Your task to perform on an android device: turn on notifications settings in the gmail app Image 0: 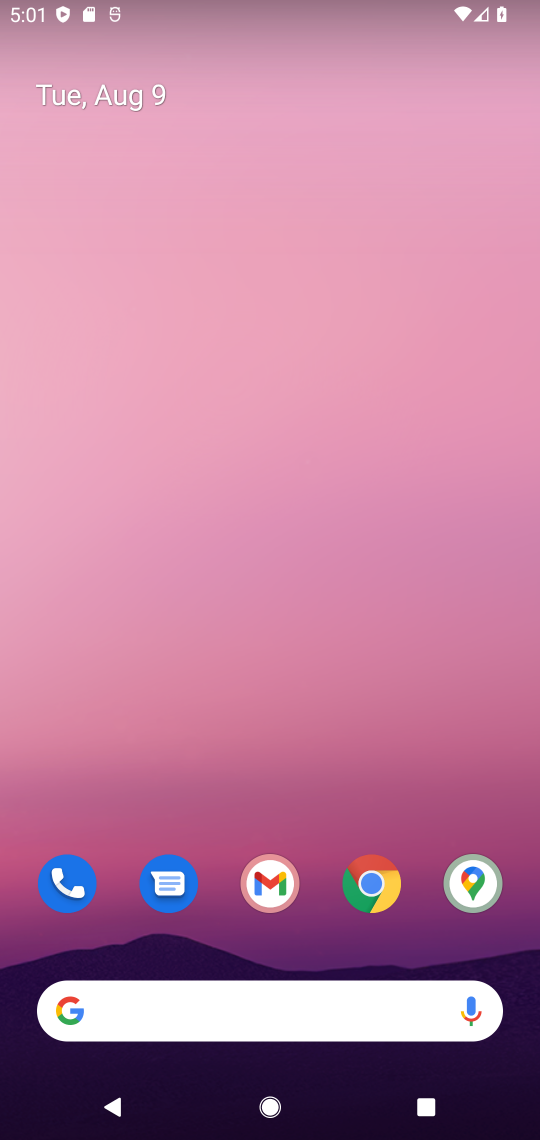
Step 0: click (266, 873)
Your task to perform on an android device: turn on notifications settings in the gmail app Image 1: 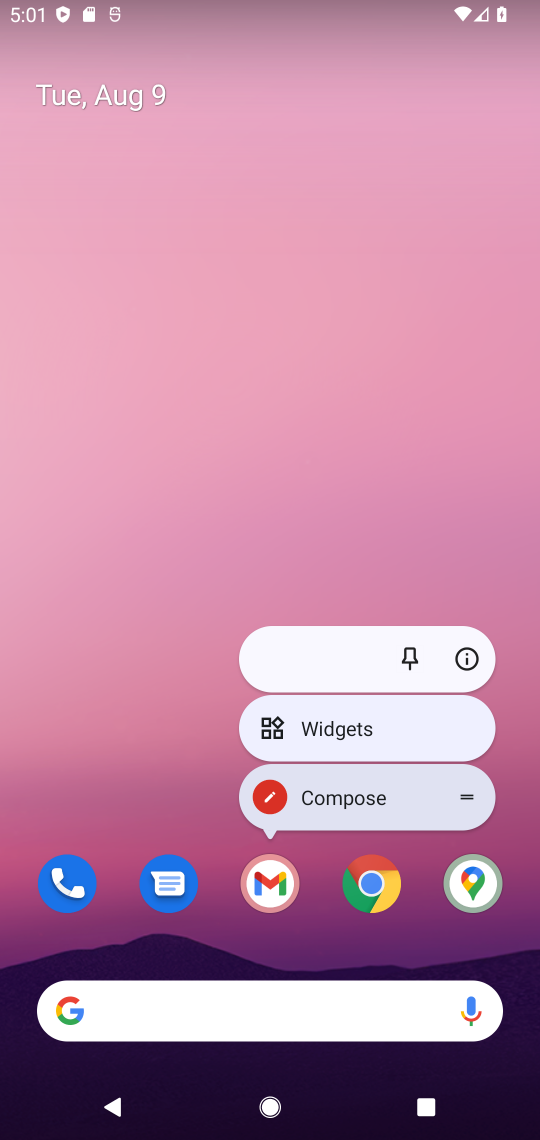
Step 1: click (262, 896)
Your task to perform on an android device: turn on notifications settings in the gmail app Image 2: 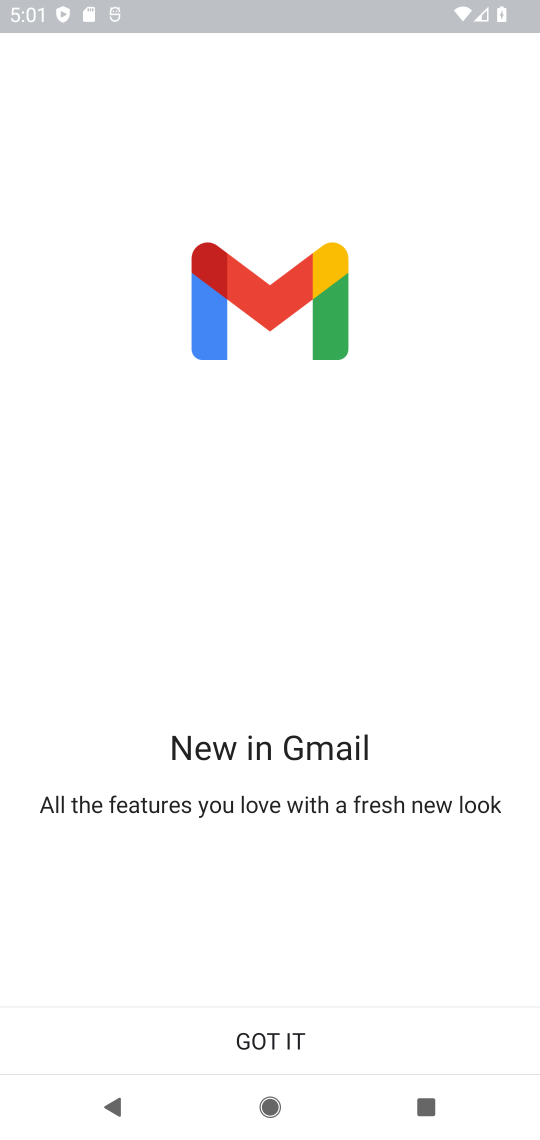
Step 2: click (331, 1021)
Your task to perform on an android device: turn on notifications settings in the gmail app Image 3: 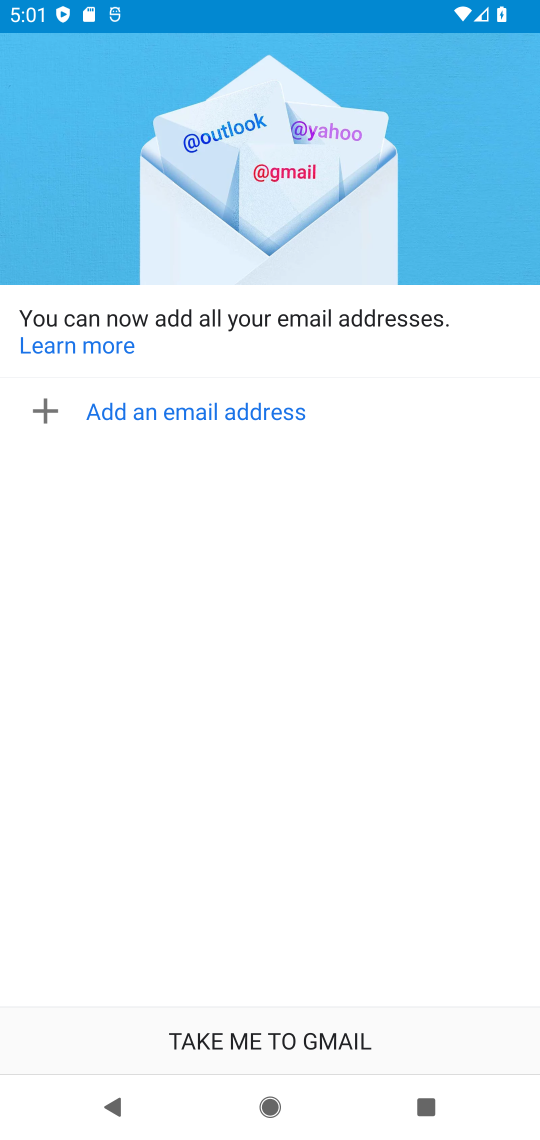
Step 3: click (346, 1026)
Your task to perform on an android device: turn on notifications settings in the gmail app Image 4: 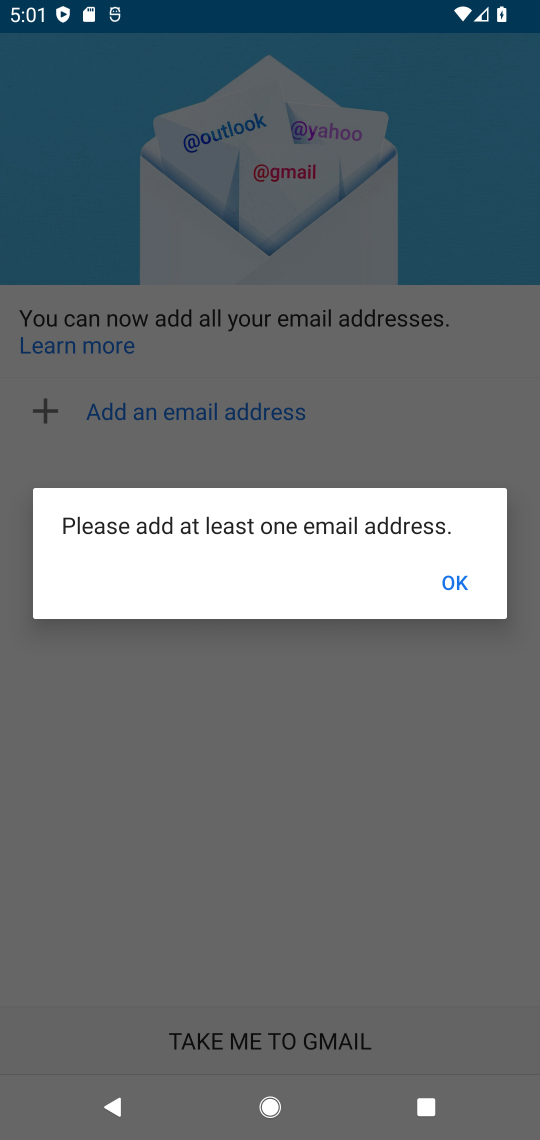
Step 4: task complete